Your task to perform on an android device: turn off sleep mode Image 0: 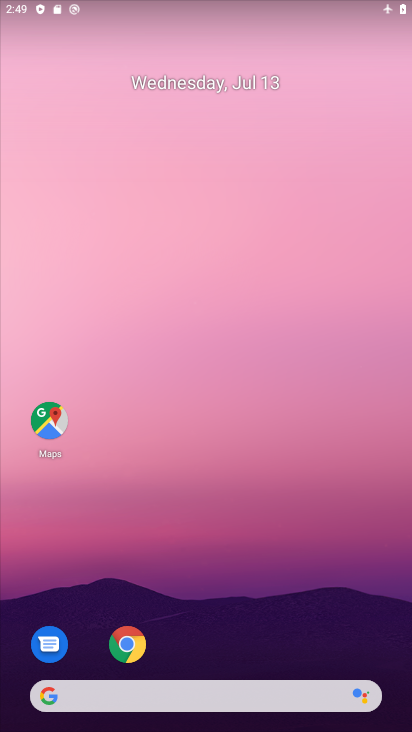
Step 0: drag from (172, 690) to (213, 84)
Your task to perform on an android device: turn off sleep mode Image 1: 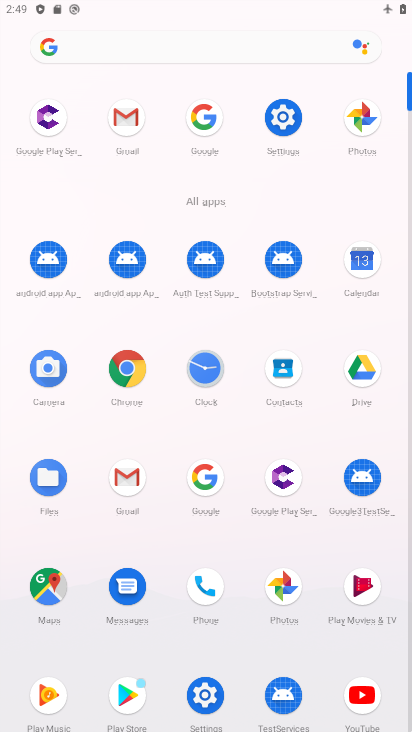
Step 1: click (283, 119)
Your task to perform on an android device: turn off sleep mode Image 2: 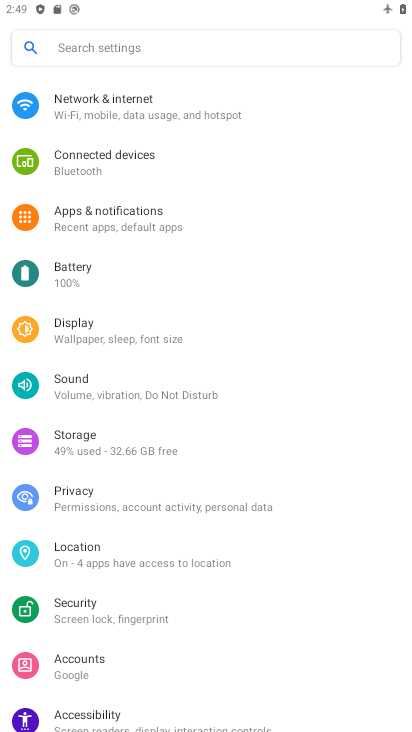
Step 2: click (107, 213)
Your task to perform on an android device: turn off sleep mode Image 3: 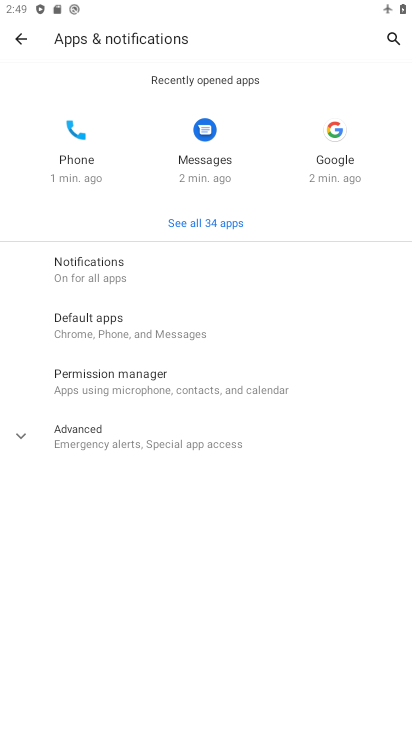
Step 3: press back button
Your task to perform on an android device: turn off sleep mode Image 4: 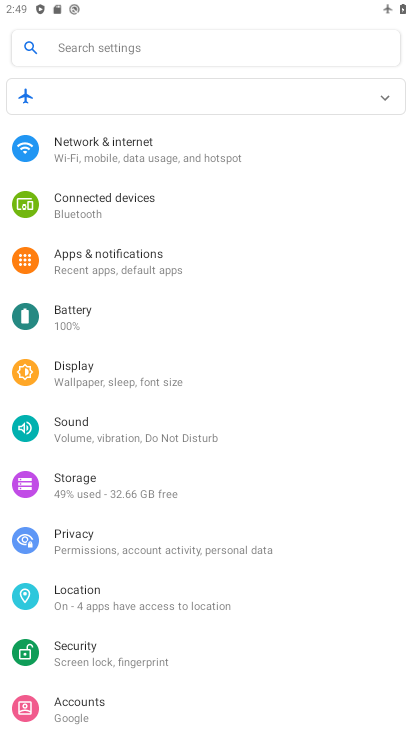
Step 4: click (144, 377)
Your task to perform on an android device: turn off sleep mode Image 5: 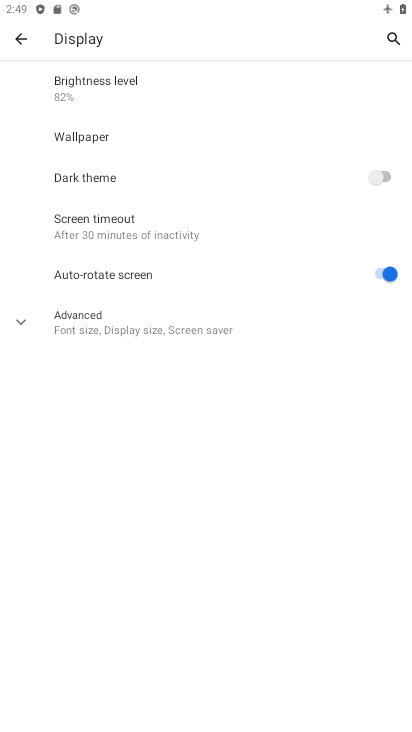
Step 5: click (109, 228)
Your task to perform on an android device: turn off sleep mode Image 6: 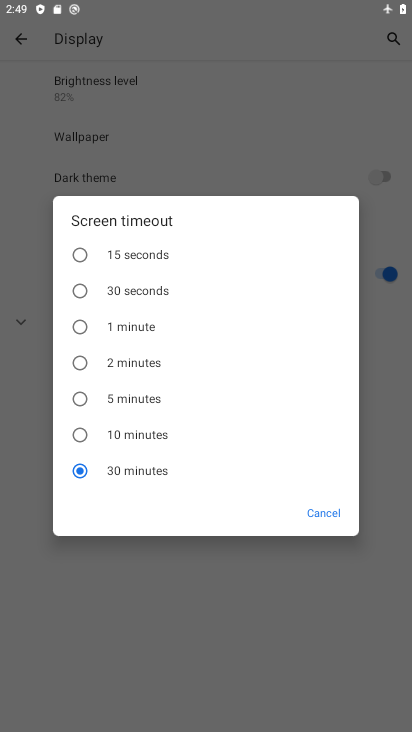
Step 6: click (81, 256)
Your task to perform on an android device: turn off sleep mode Image 7: 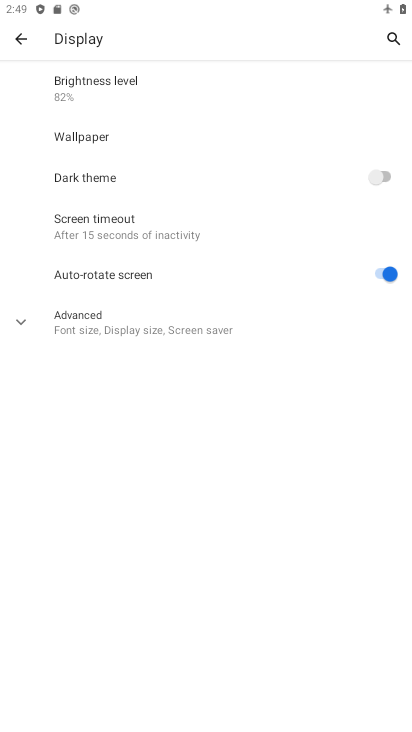
Step 7: click (107, 330)
Your task to perform on an android device: turn off sleep mode Image 8: 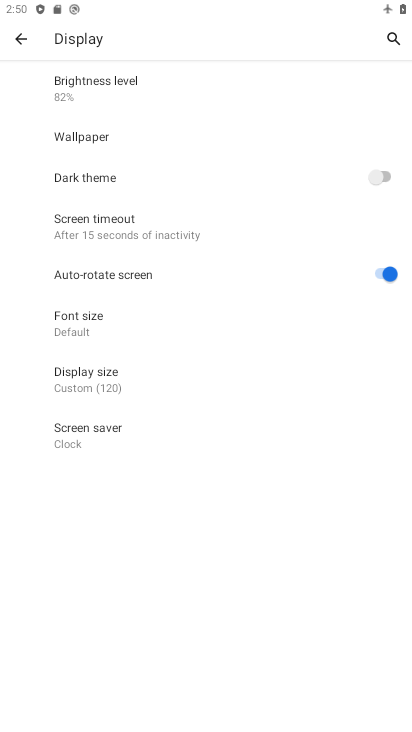
Step 8: task complete